Your task to perform on an android device: Open maps Image 0: 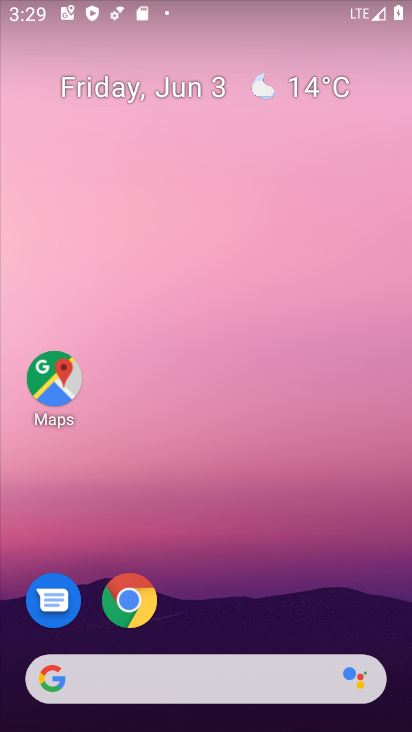
Step 0: click (52, 376)
Your task to perform on an android device: Open maps Image 1: 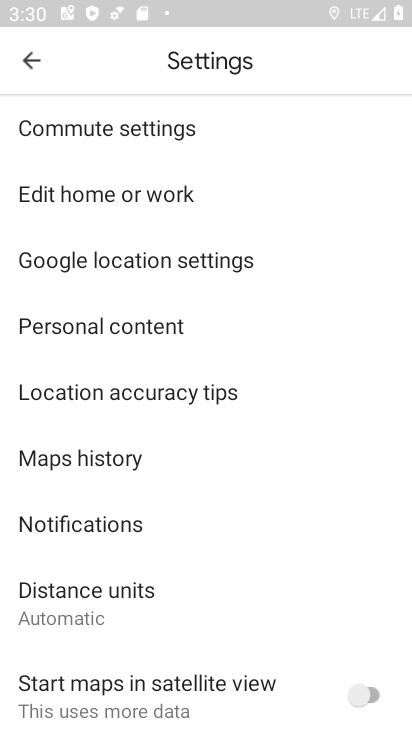
Step 1: click (31, 54)
Your task to perform on an android device: Open maps Image 2: 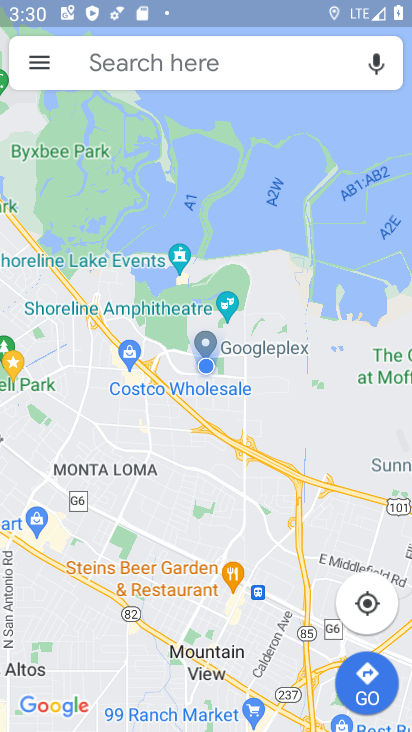
Step 2: task complete